Your task to perform on an android device: see creations saved in the google photos Image 0: 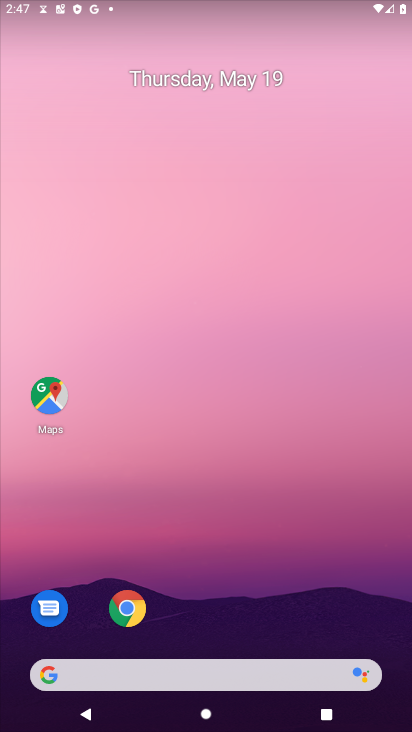
Step 0: click (25, 116)
Your task to perform on an android device: see creations saved in the google photos Image 1: 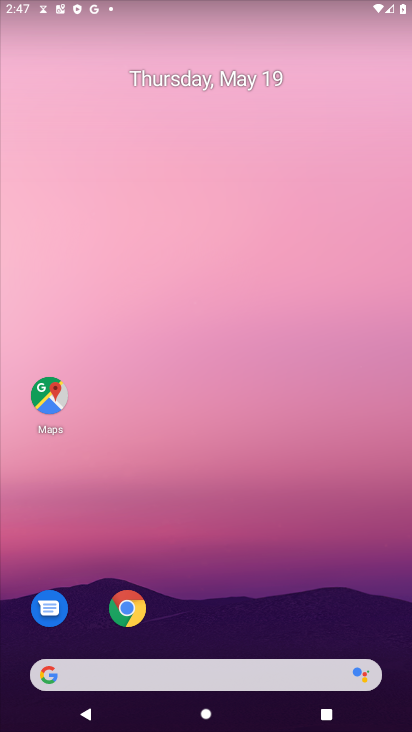
Step 1: click (25, 116)
Your task to perform on an android device: see creations saved in the google photos Image 2: 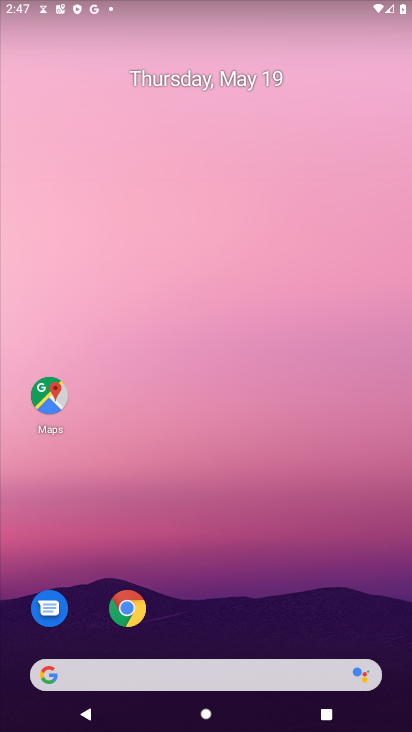
Step 2: drag from (248, 613) to (195, 188)
Your task to perform on an android device: see creations saved in the google photos Image 3: 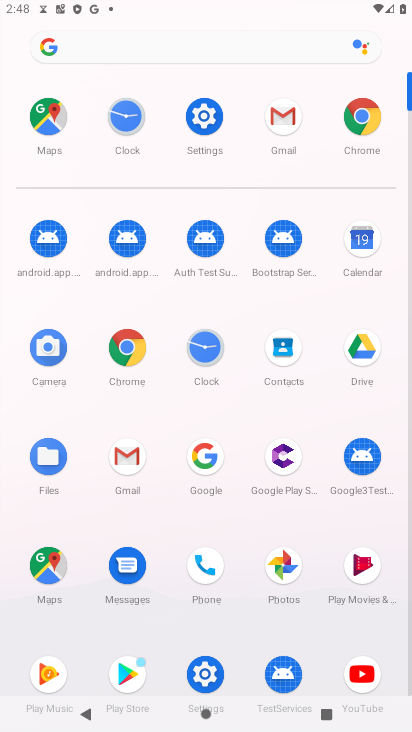
Step 3: click (282, 559)
Your task to perform on an android device: see creations saved in the google photos Image 4: 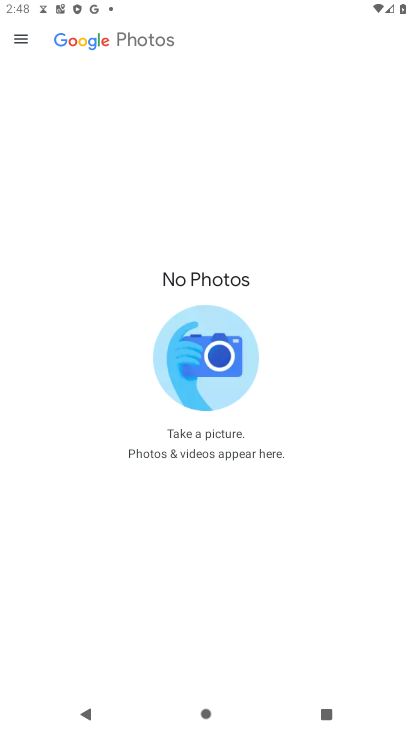
Step 4: click (21, 37)
Your task to perform on an android device: see creations saved in the google photos Image 5: 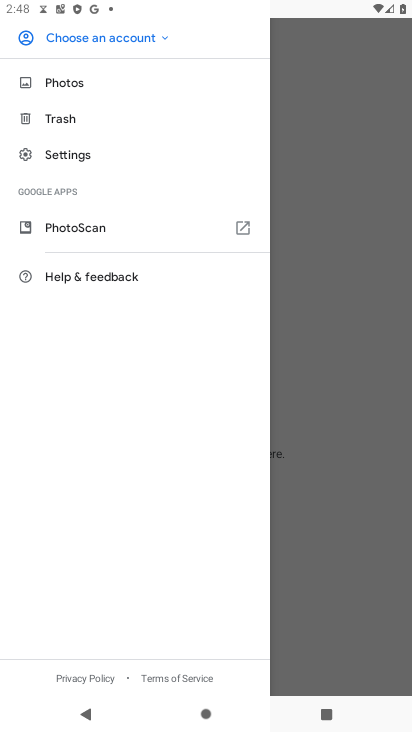
Step 5: click (82, 88)
Your task to perform on an android device: see creations saved in the google photos Image 6: 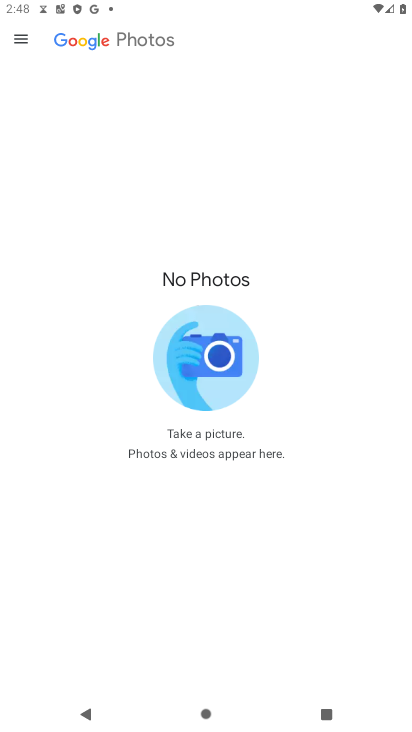
Step 6: click (22, 39)
Your task to perform on an android device: see creations saved in the google photos Image 7: 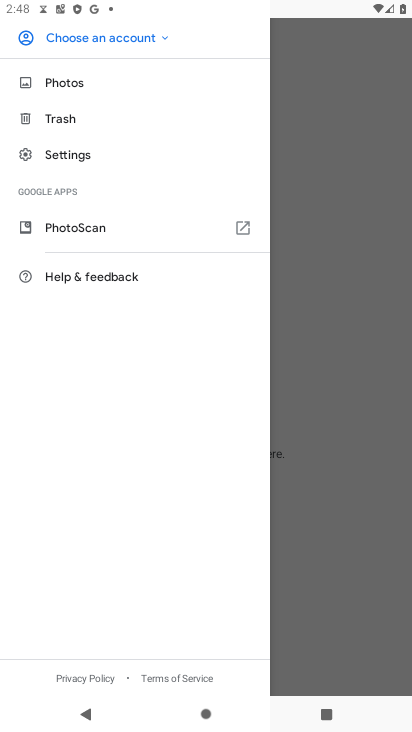
Step 7: task complete